Your task to perform on an android device: change the clock style Image 0: 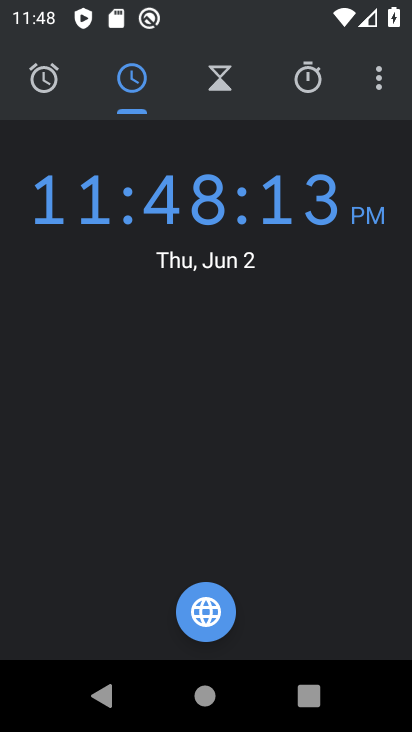
Step 0: click (375, 83)
Your task to perform on an android device: change the clock style Image 1: 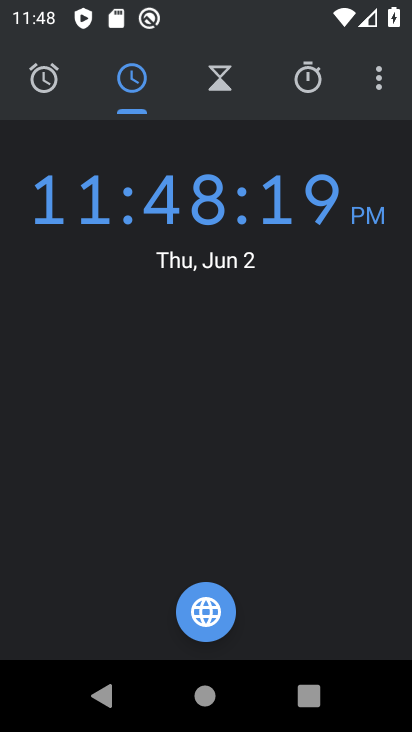
Step 1: click (378, 75)
Your task to perform on an android device: change the clock style Image 2: 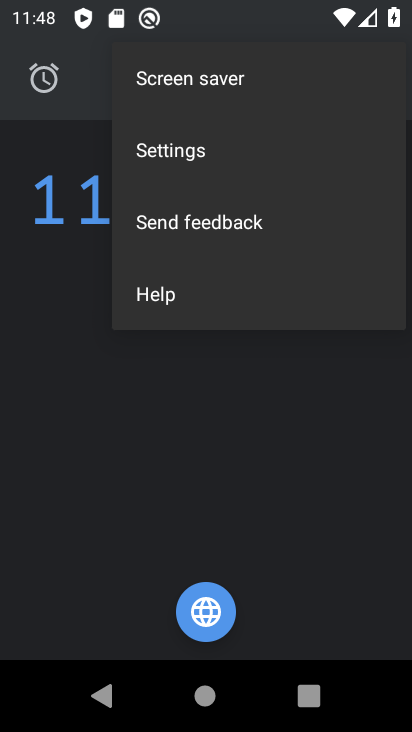
Step 2: click (181, 150)
Your task to perform on an android device: change the clock style Image 3: 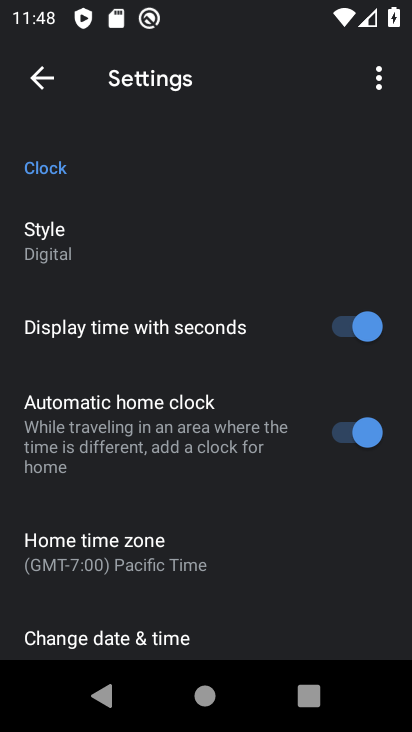
Step 3: click (65, 246)
Your task to perform on an android device: change the clock style Image 4: 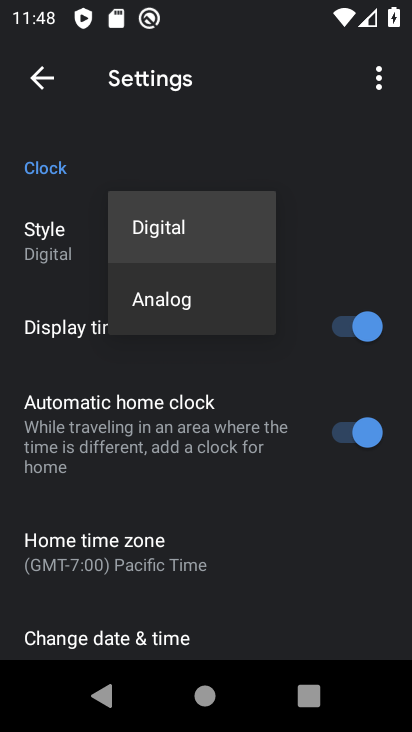
Step 4: click (176, 305)
Your task to perform on an android device: change the clock style Image 5: 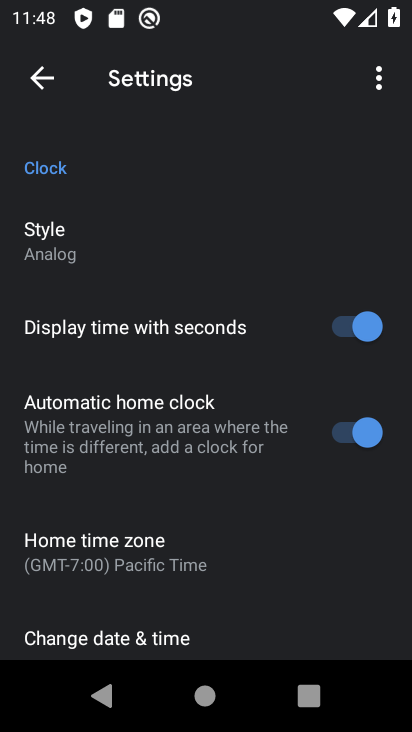
Step 5: task complete